Your task to perform on an android device: turn off picture-in-picture Image 0: 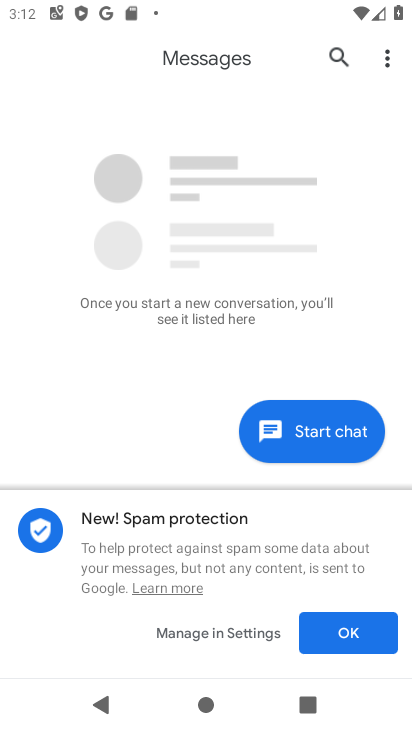
Step 0: press home button
Your task to perform on an android device: turn off picture-in-picture Image 1: 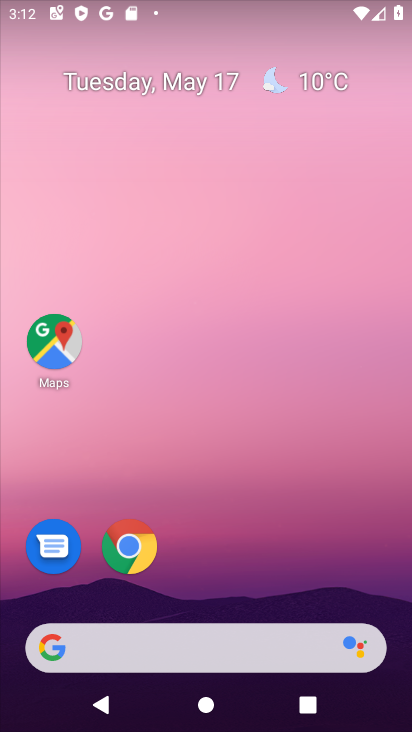
Step 1: click (118, 532)
Your task to perform on an android device: turn off picture-in-picture Image 2: 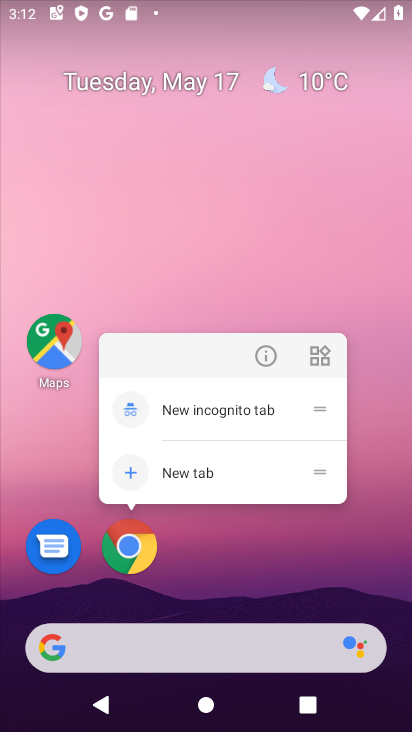
Step 2: click (262, 352)
Your task to perform on an android device: turn off picture-in-picture Image 3: 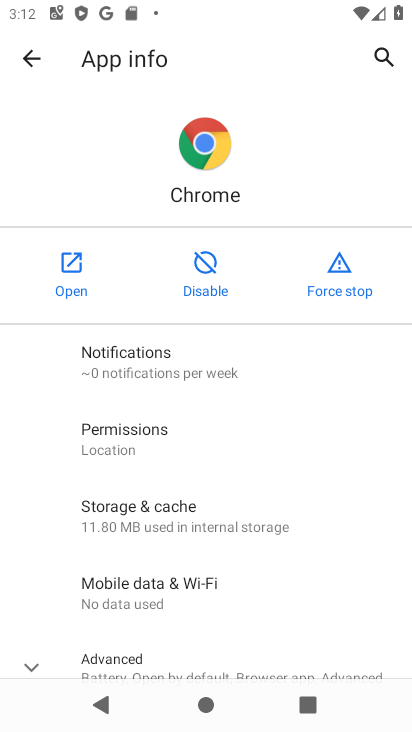
Step 3: drag from (151, 546) to (194, 139)
Your task to perform on an android device: turn off picture-in-picture Image 4: 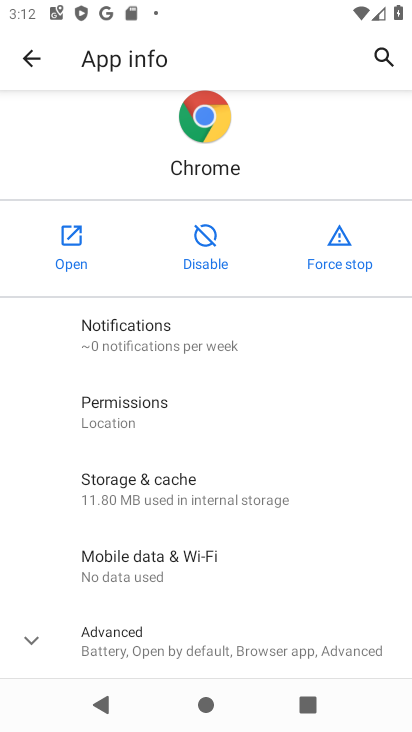
Step 4: click (121, 644)
Your task to perform on an android device: turn off picture-in-picture Image 5: 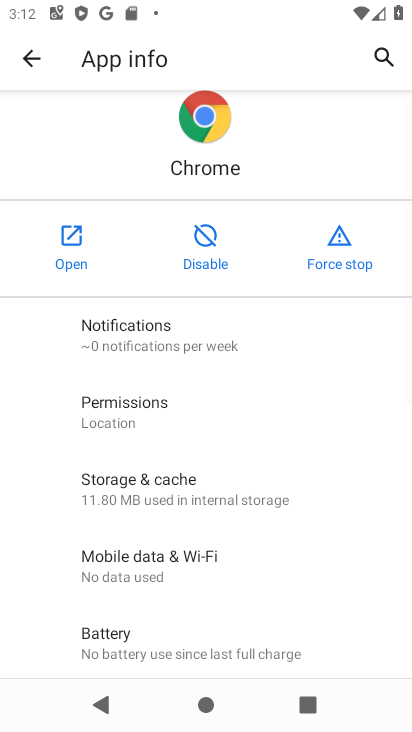
Step 5: drag from (151, 629) to (194, 358)
Your task to perform on an android device: turn off picture-in-picture Image 6: 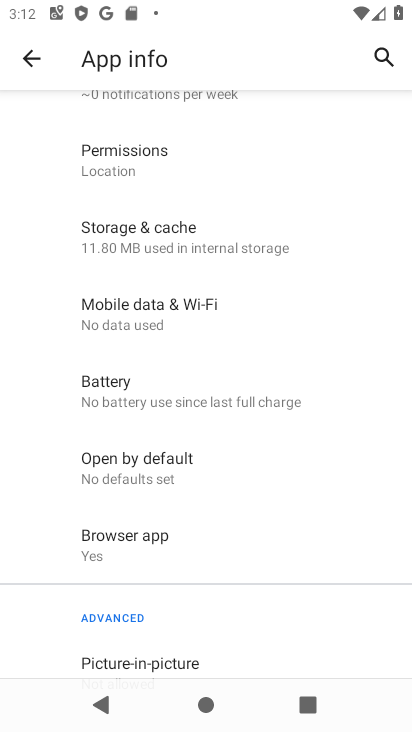
Step 6: drag from (196, 562) to (240, 309)
Your task to perform on an android device: turn off picture-in-picture Image 7: 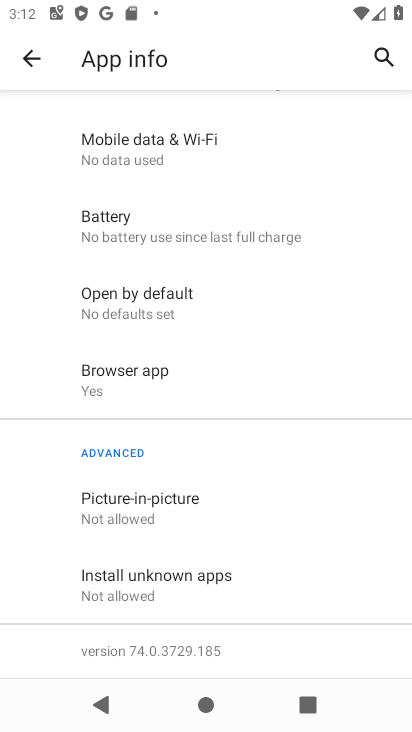
Step 7: click (150, 519)
Your task to perform on an android device: turn off picture-in-picture Image 8: 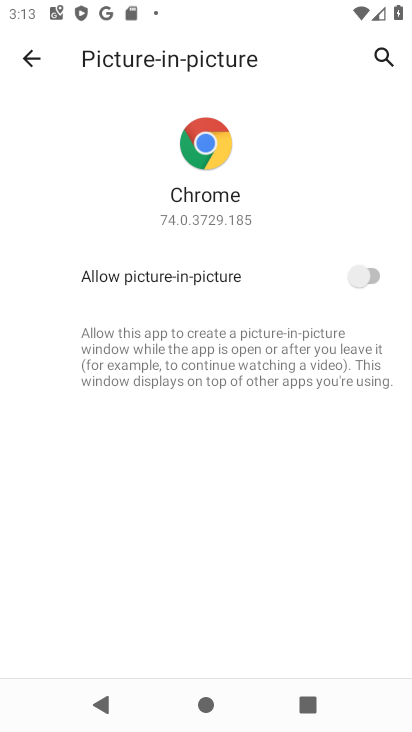
Step 8: task complete